Your task to perform on an android device: turn on wifi Image 0: 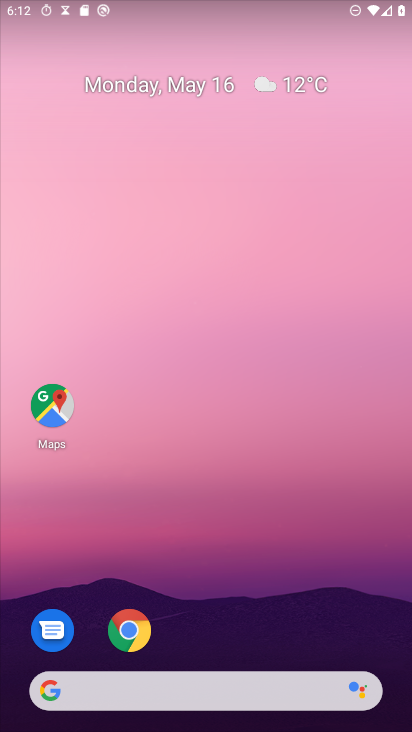
Step 0: drag from (175, 1) to (150, 416)
Your task to perform on an android device: turn on wifi Image 1: 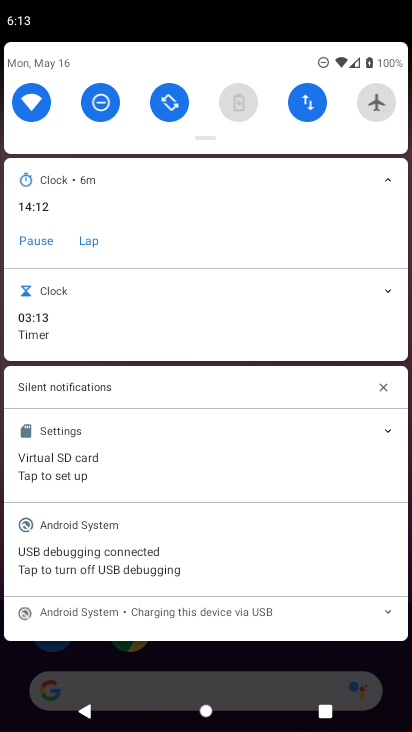
Step 1: task complete